Your task to perform on an android device: change text size in settings app Image 0: 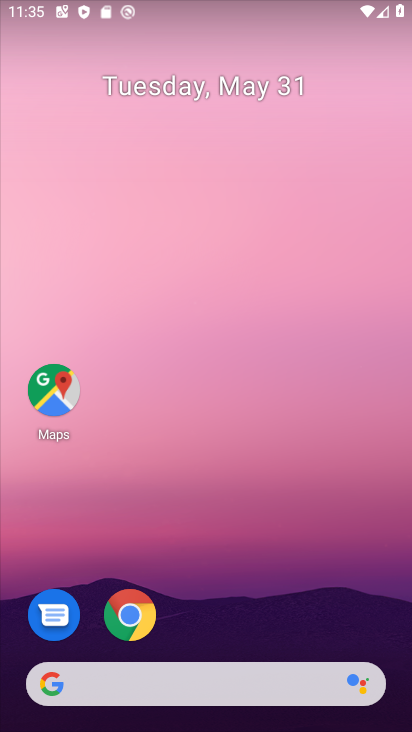
Step 0: task complete